Your task to perform on an android device: Open Google Chrome and open the bookmarks view Image 0: 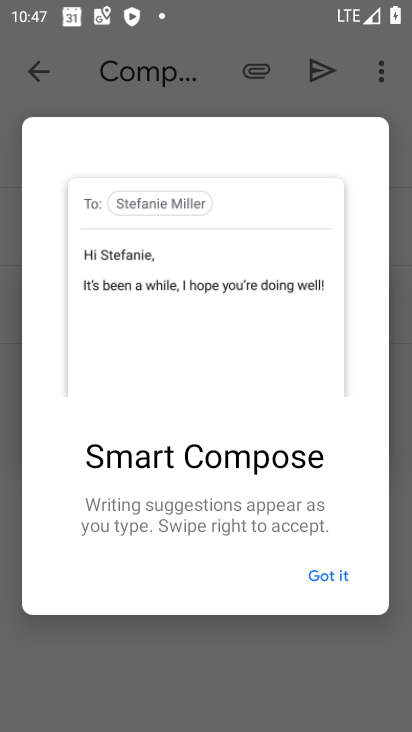
Step 0: press home button
Your task to perform on an android device: Open Google Chrome and open the bookmarks view Image 1: 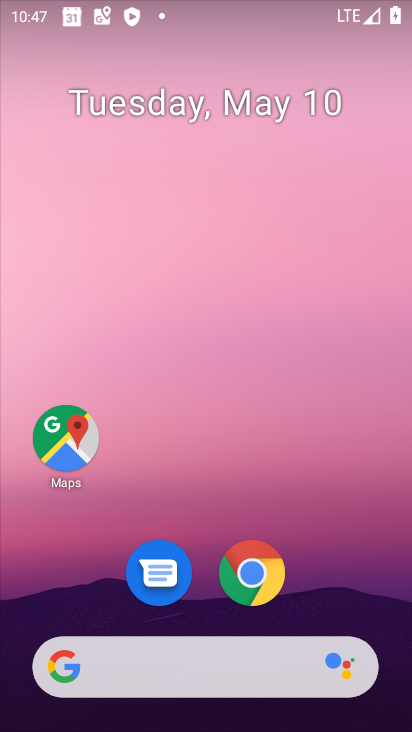
Step 1: click (257, 577)
Your task to perform on an android device: Open Google Chrome and open the bookmarks view Image 2: 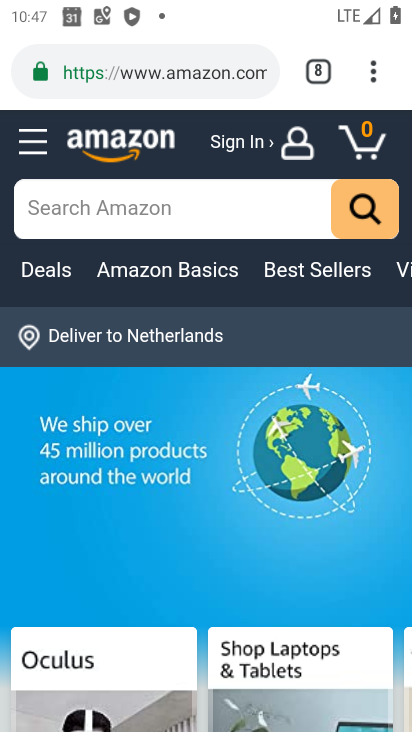
Step 2: click (371, 62)
Your task to perform on an android device: Open Google Chrome and open the bookmarks view Image 3: 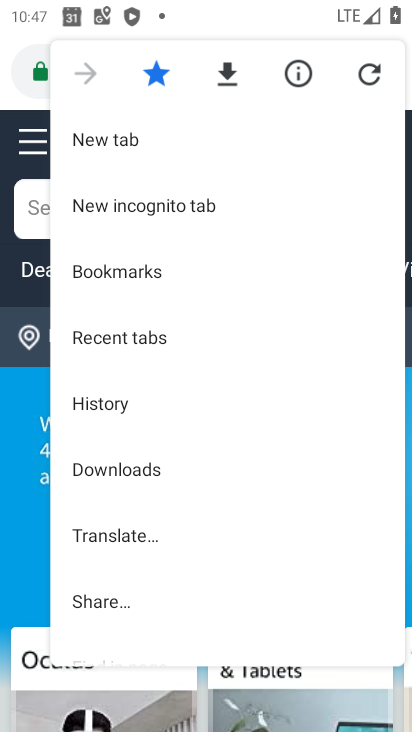
Step 3: click (136, 270)
Your task to perform on an android device: Open Google Chrome and open the bookmarks view Image 4: 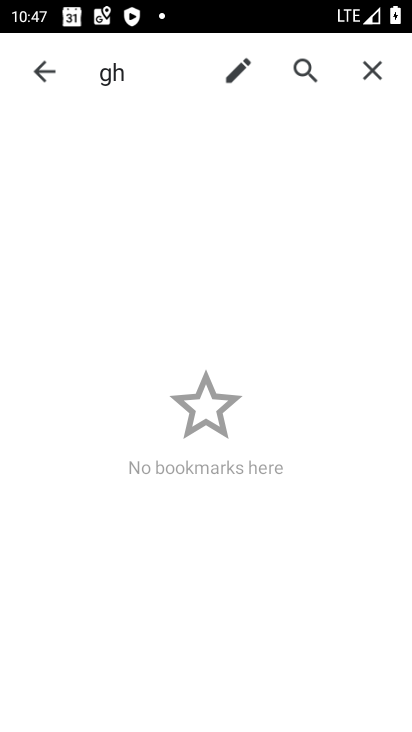
Step 4: click (33, 66)
Your task to perform on an android device: Open Google Chrome and open the bookmarks view Image 5: 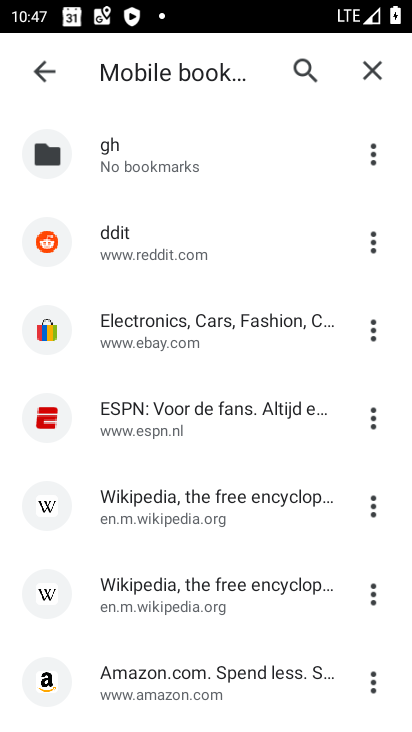
Step 5: click (372, 148)
Your task to perform on an android device: Open Google Chrome and open the bookmarks view Image 6: 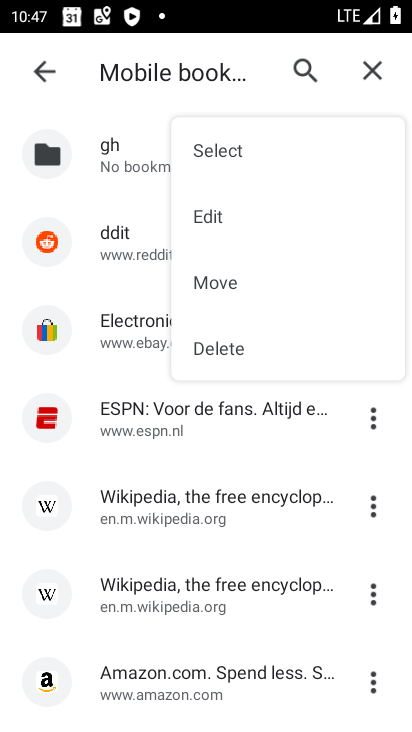
Step 6: click (220, 212)
Your task to perform on an android device: Open Google Chrome and open the bookmarks view Image 7: 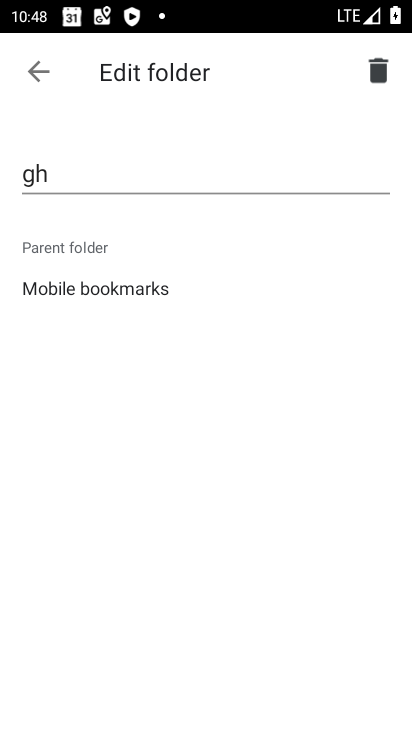
Step 7: task complete